Your task to perform on an android device: Open Google Maps and go to "Timeline" Image 0: 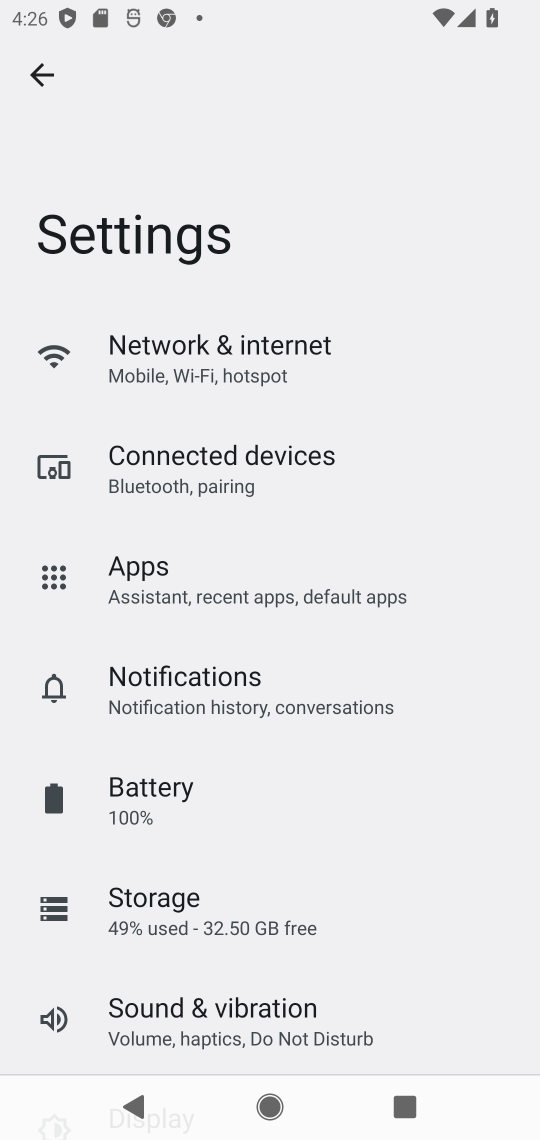
Step 0: press home button
Your task to perform on an android device: Open Google Maps and go to "Timeline" Image 1: 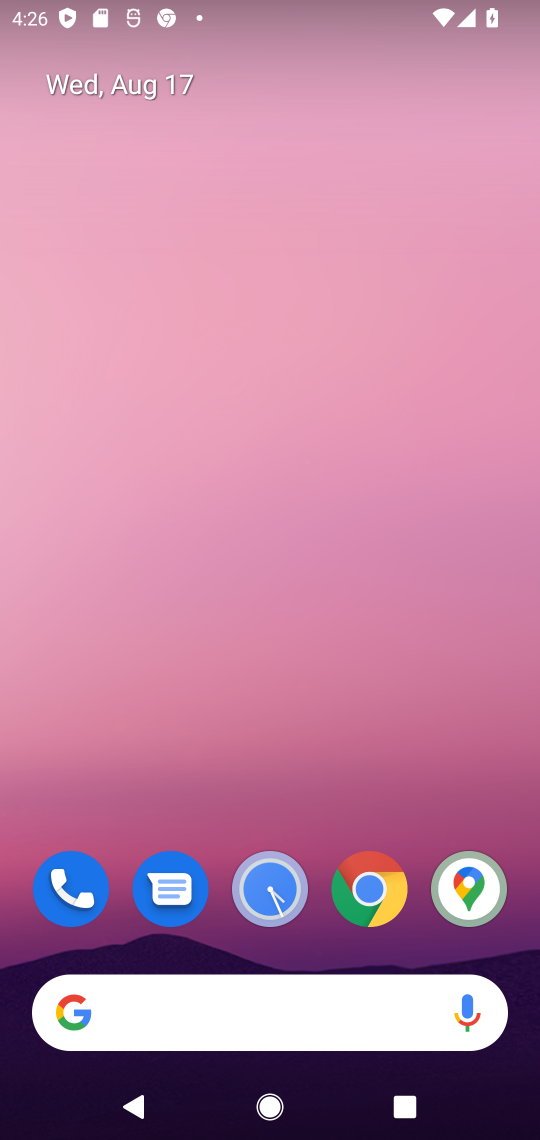
Step 1: click (474, 883)
Your task to perform on an android device: Open Google Maps and go to "Timeline" Image 2: 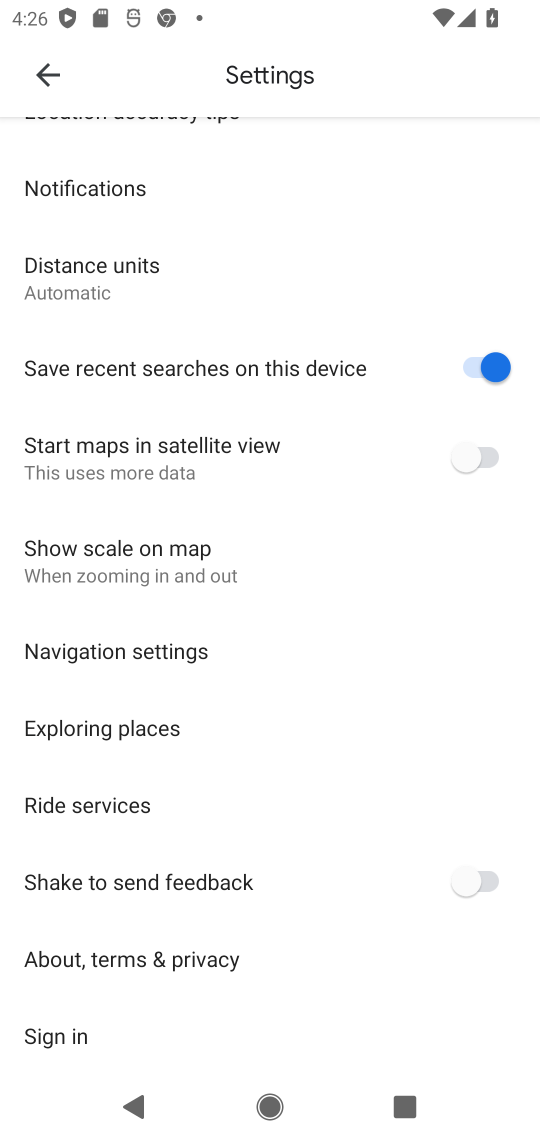
Step 2: click (52, 78)
Your task to perform on an android device: Open Google Maps and go to "Timeline" Image 3: 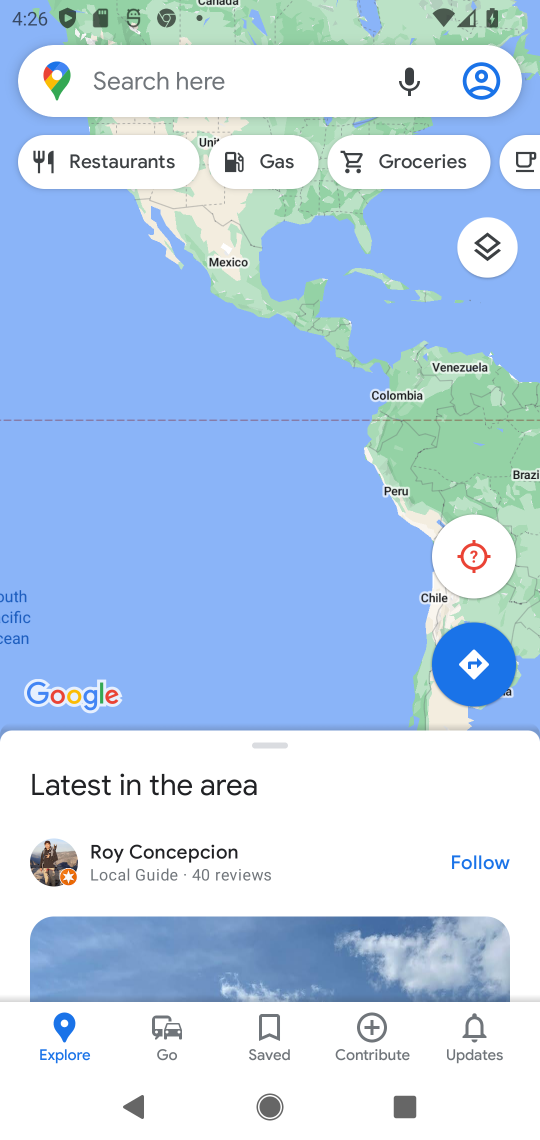
Step 3: click (467, 66)
Your task to perform on an android device: Open Google Maps and go to "Timeline" Image 4: 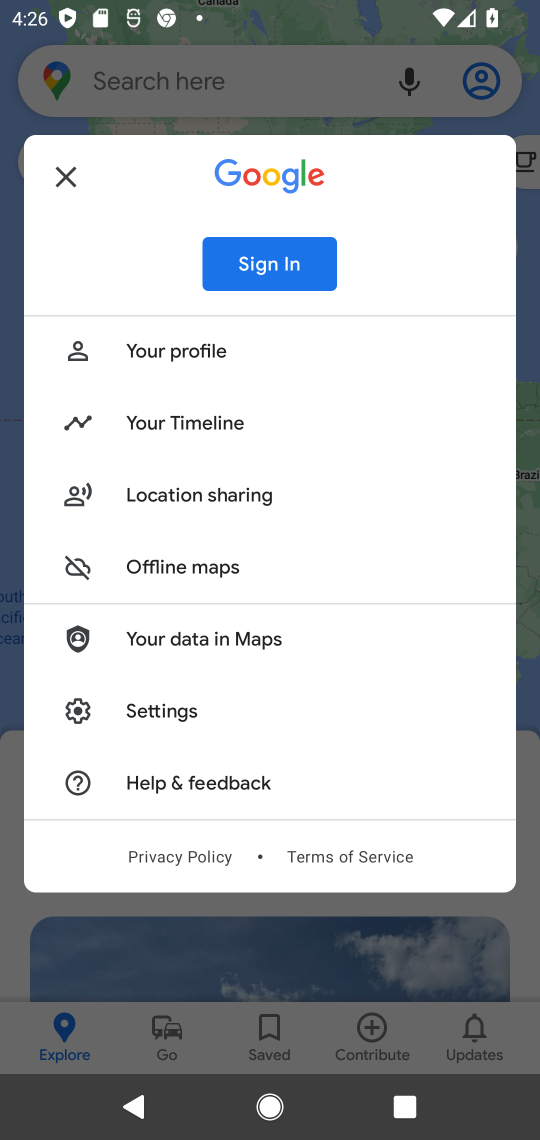
Step 4: click (171, 422)
Your task to perform on an android device: Open Google Maps and go to "Timeline" Image 5: 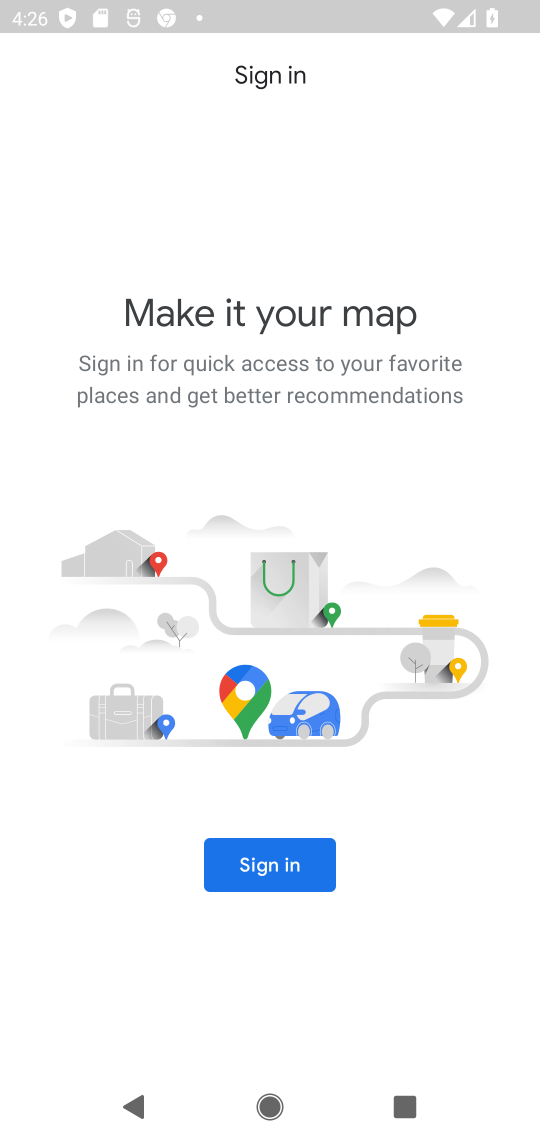
Step 5: task complete